Your task to perform on an android device: Open Android settings Image 0: 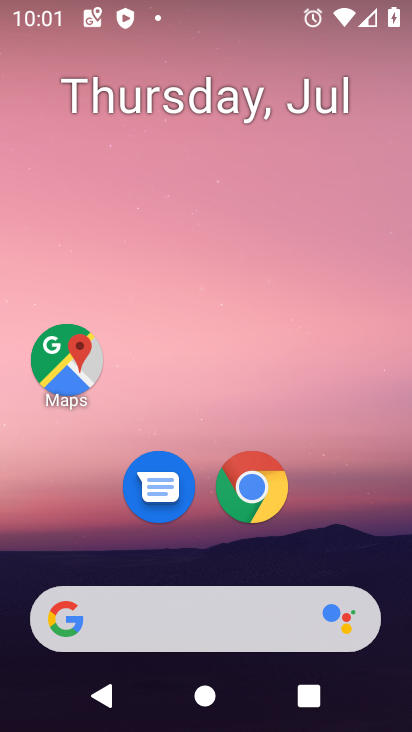
Step 0: drag from (195, 625) to (196, 203)
Your task to perform on an android device: Open Android settings Image 1: 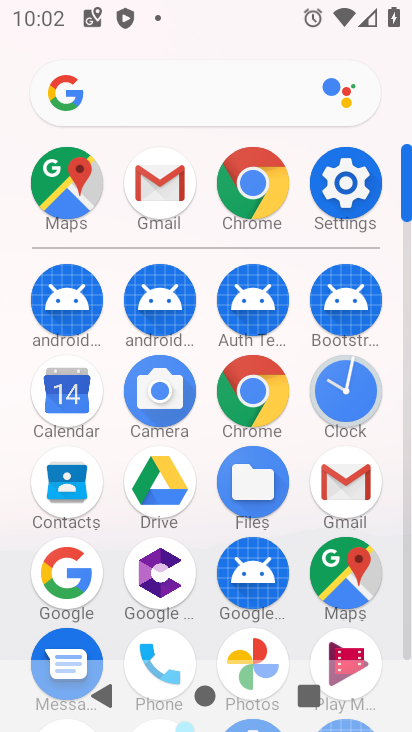
Step 1: click (341, 185)
Your task to perform on an android device: Open Android settings Image 2: 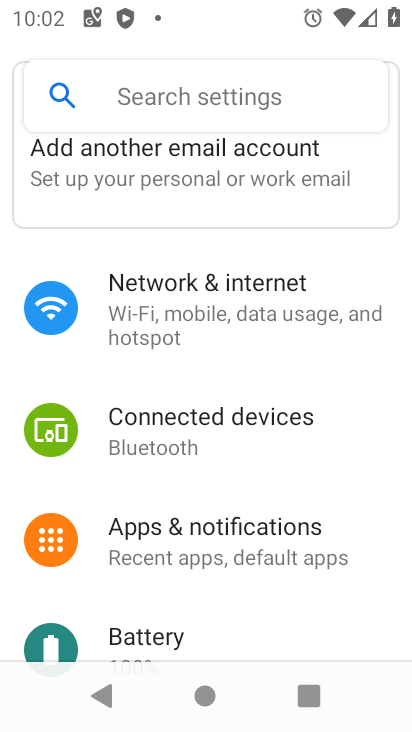
Step 2: drag from (212, 540) to (299, 127)
Your task to perform on an android device: Open Android settings Image 3: 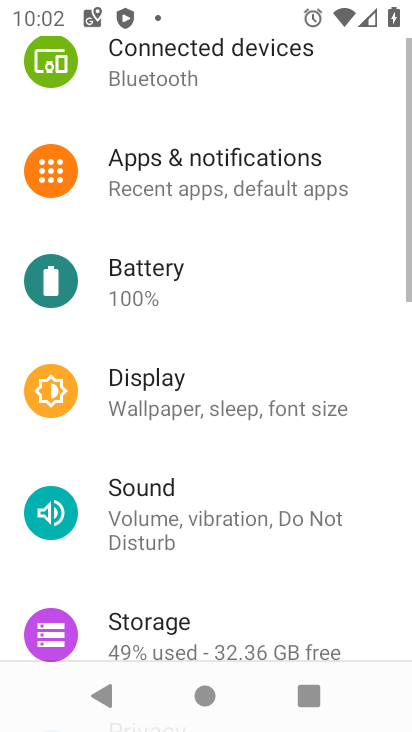
Step 3: click (299, 127)
Your task to perform on an android device: Open Android settings Image 4: 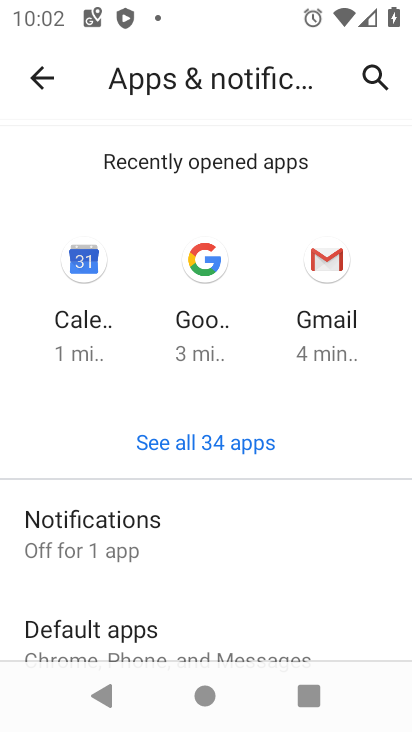
Step 4: click (39, 78)
Your task to perform on an android device: Open Android settings Image 5: 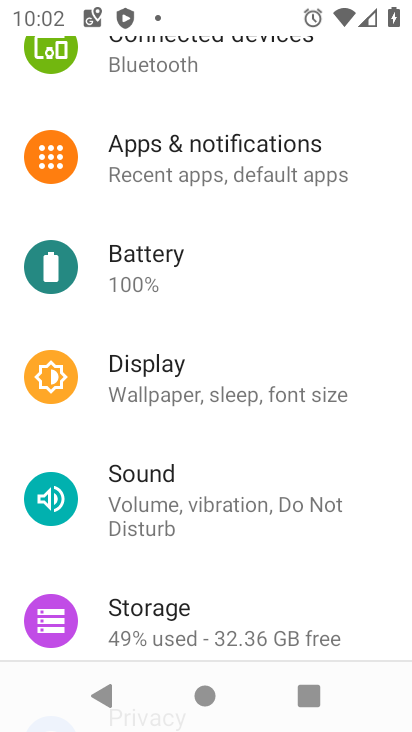
Step 5: drag from (209, 478) to (279, 107)
Your task to perform on an android device: Open Android settings Image 6: 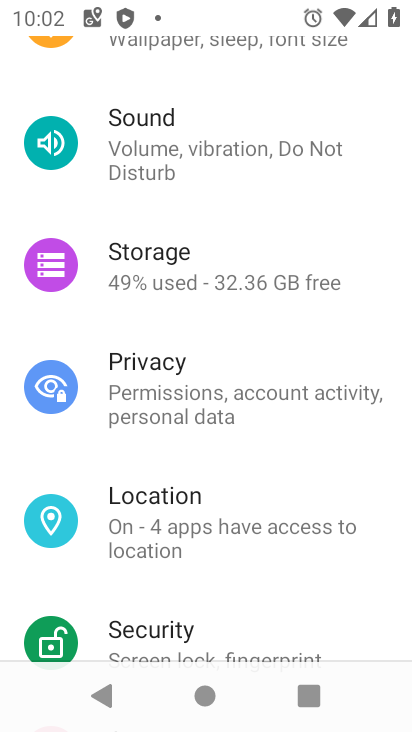
Step 6: drag from (214, 466) to (292, 142)
Your task to perform on an android device: Open Android settings Image 7: 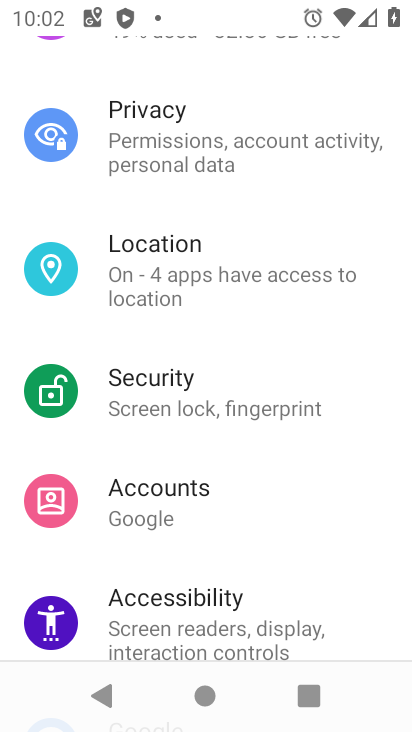
Step 7: drag from (199, 559) to (207, 171)
Your task to perform on an android device: Open Android settings Image 8: 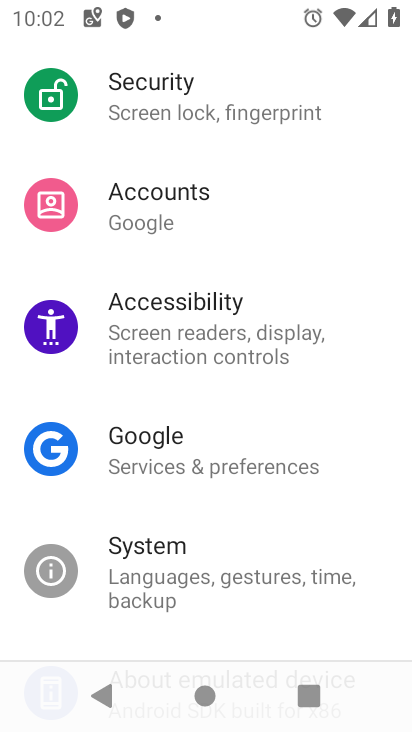
Step 8: drag from (194, 570) to (207, 204)
Your task to perform on an android device: Open Android settings Image 9: 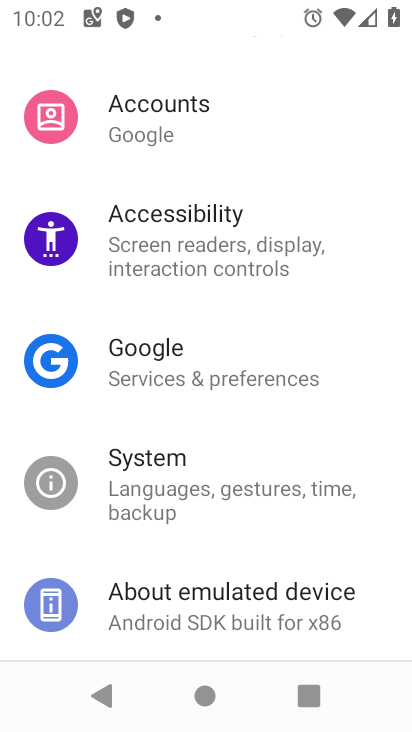
Step 9: click (202, 618)
Your task to perform on an android device: Open Android settings Image 10: 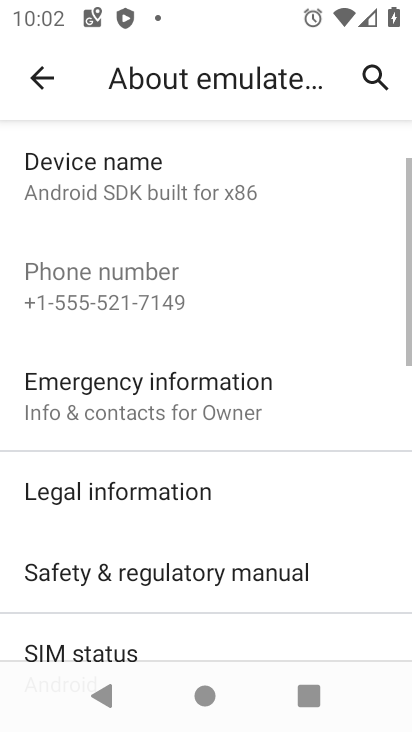
Step 10: drag from (205, 557) to (257, 219)
Your task to perform on an android device: Open Android settings Image 11: 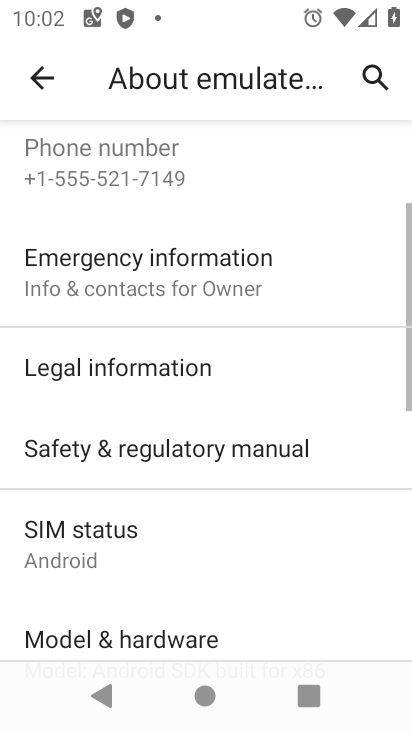
Step 11: drag from (182, 558) to (219, 255)
Your task to perform on an android device: Open Android settings Image 12: 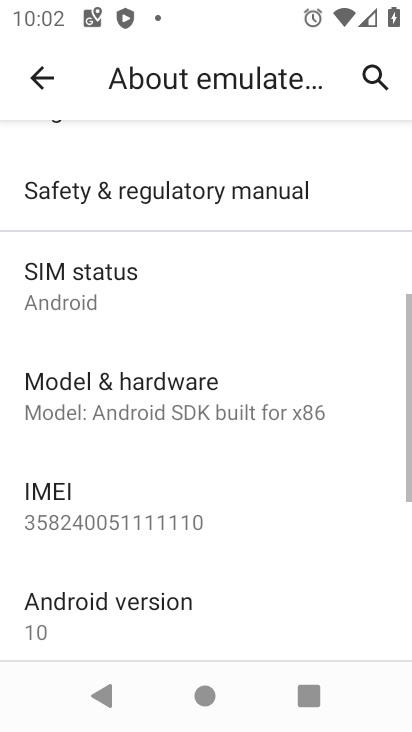
Step 12: click (190, 603)
Your task to perform on an android device: Open Android settings Image 13: 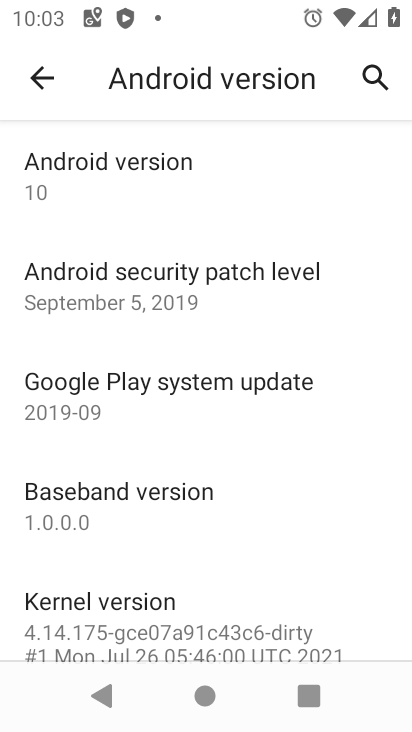
Step 13: click (183, 163)
Your task to perform on an android device: Open Android settings Image 14: 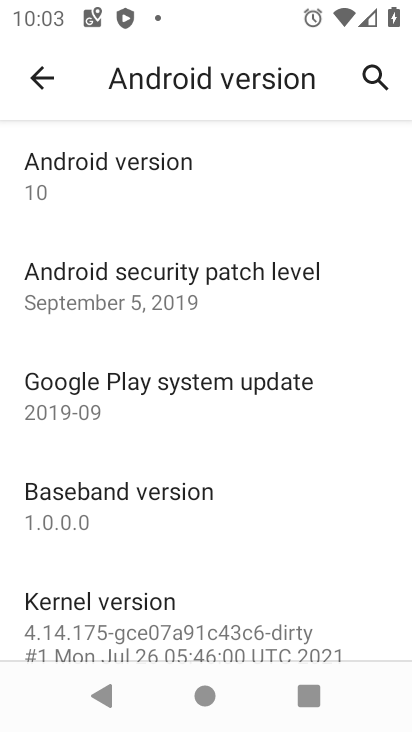
Step 14: task complete